Your task to perform on an android device: toggle show notifications on the lock screen Image 0: 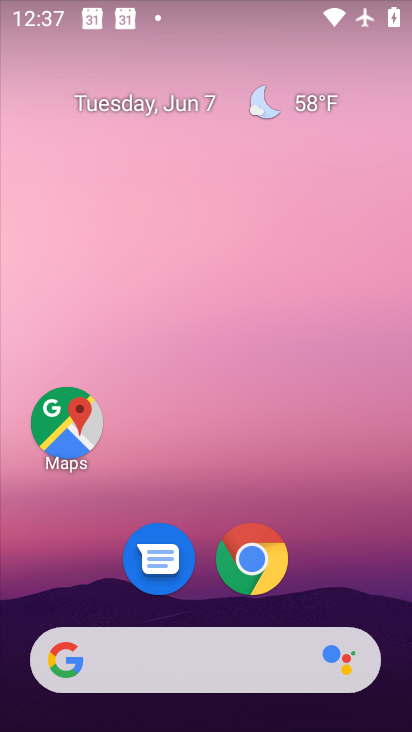
Step 0: drag from (399, 636) to (352, 72)
Your task to perform on an android device: toggle show notifications on the lock screen Image 1: 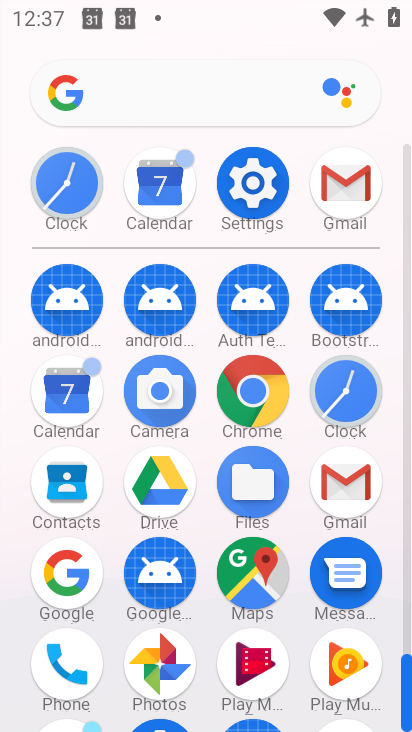
Step 1: click (407, 621)
Your task to perform on an android device: toggle show notifications on the lock screen Image 2: 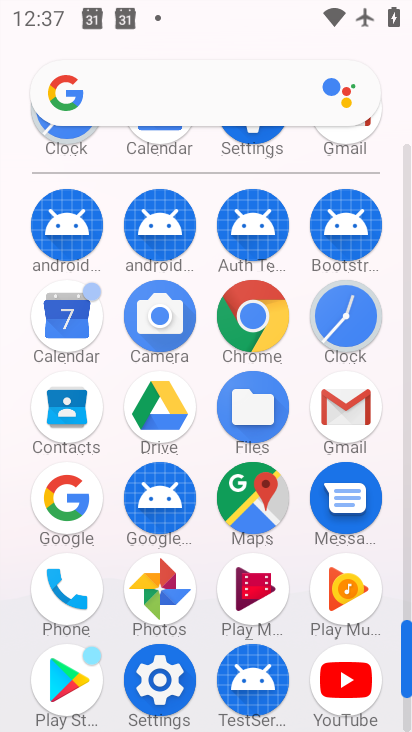
Step 2: click (161, 685)
Your task to perform on an android device: toggle show notifications on the lock screen Image 3: 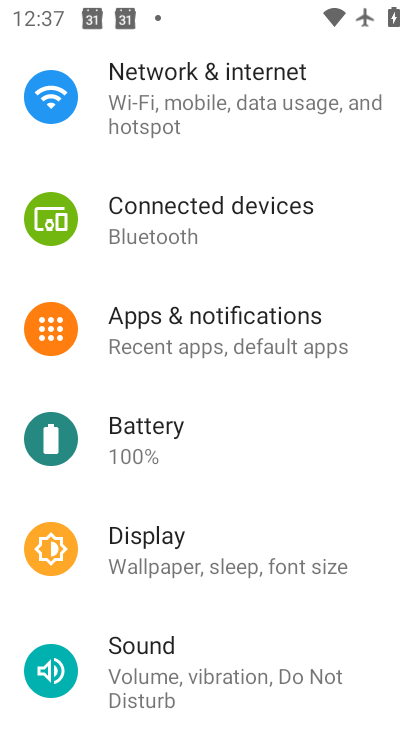
Step 3: click (204, 329)
Your task to perform on an android device: toggle show notifications on the lock screen Image 4: 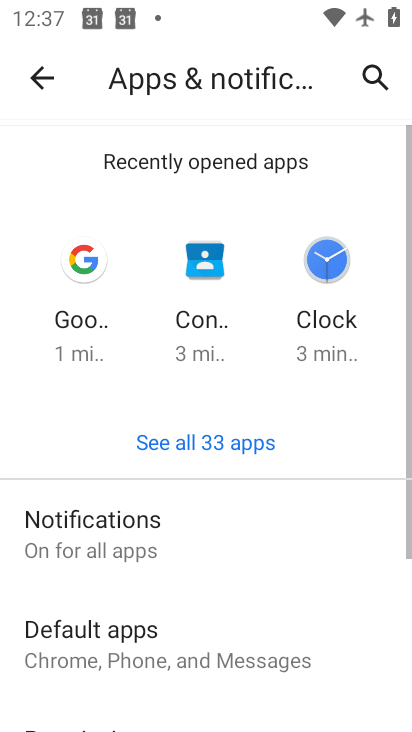
Step 4: click (117, 538)
Your task to perform on an android device: toggle show notifications on the lock screen Image 5: 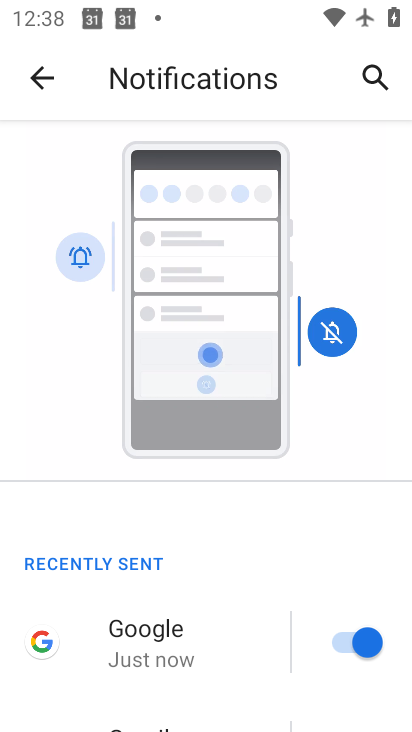
Step 5: drag from (294, 666) to (250, 165)
Your task to perform on an android device: toggle show notifications on the lock screen Image 6: 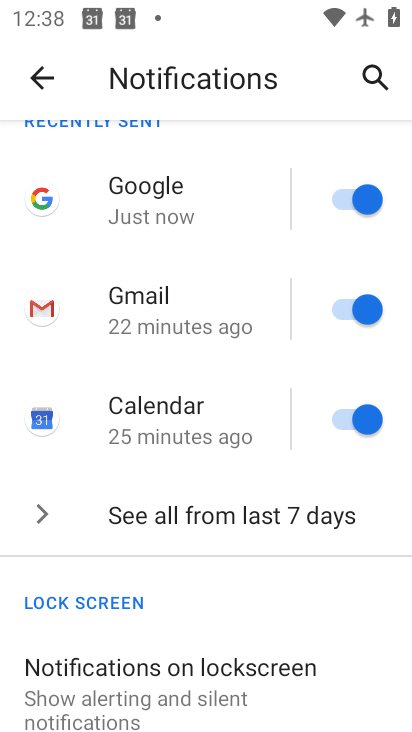
Step 6: drag from (284, 649) to (289, 199)
Your task to perform on an android device: toggle show notifications on the lock screen Image 7: 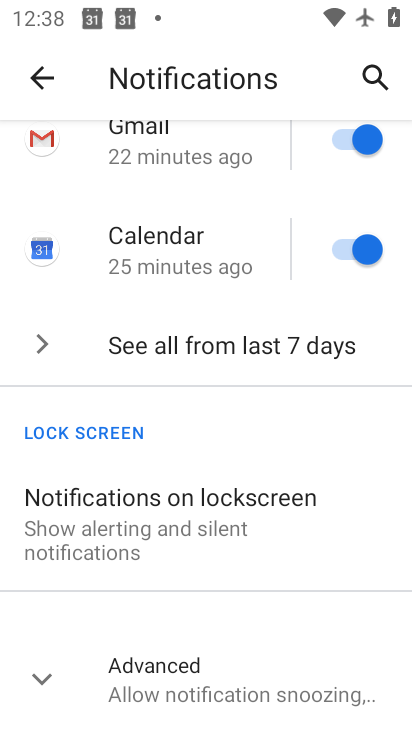
Step 7: click (112, 529)
Your task to perform on an android device: toggle show notifications on the lock screen Image 8: 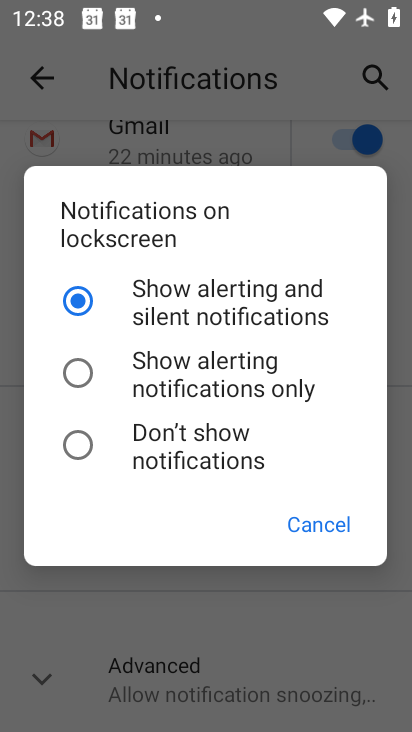
Step 8: click (84, 378)
Your task to perform on an android device: toggle show notifications on the lock screen Image 9: 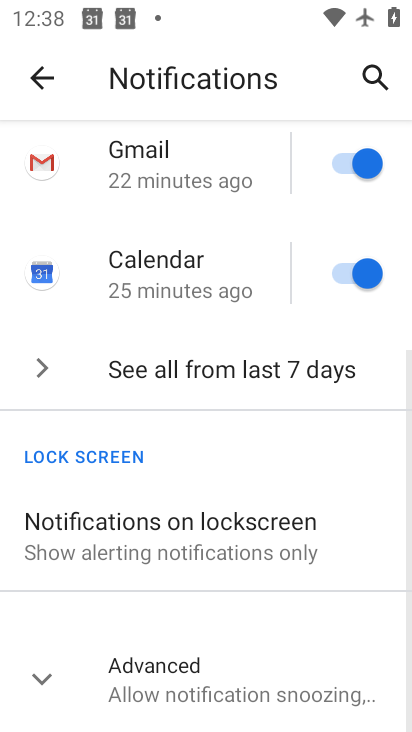
Step 9: task complete